Your task to perform on an android device: Go to internet settings Image 0: 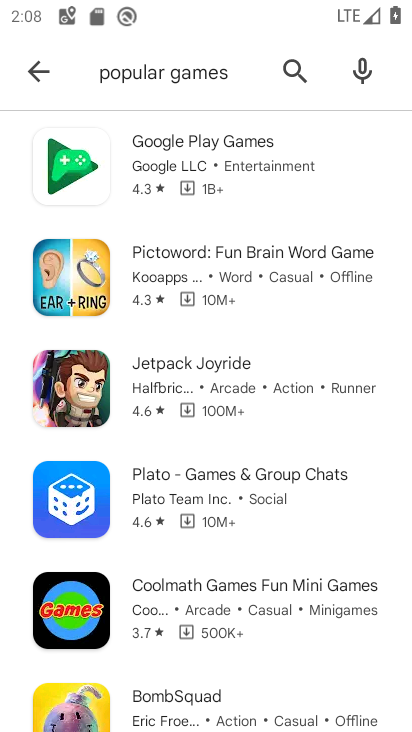
Step 0: press home button
Your task to perform on an android device: Go to internet settings Image 1: 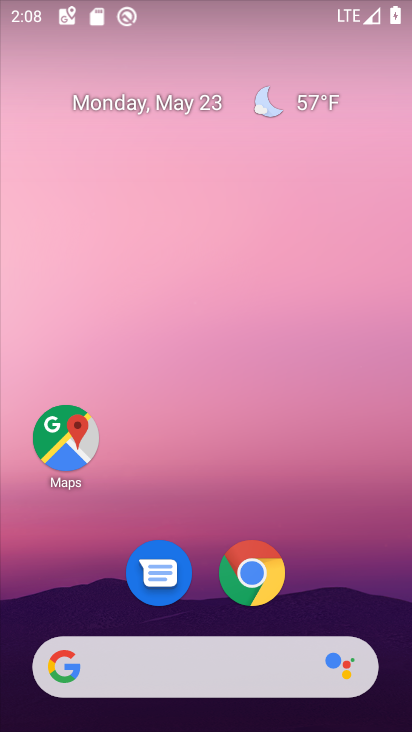
Step 1: drag from (341, 543) to (292, 33)
Your task to perform on an android device: Go to internet settings Image 2: 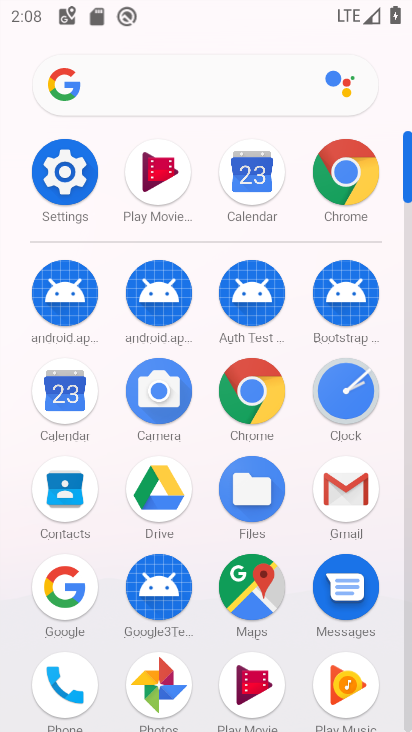
Step 2: click (45, 181)
Your task to perform on an android device: Go to internet settings Image 3: 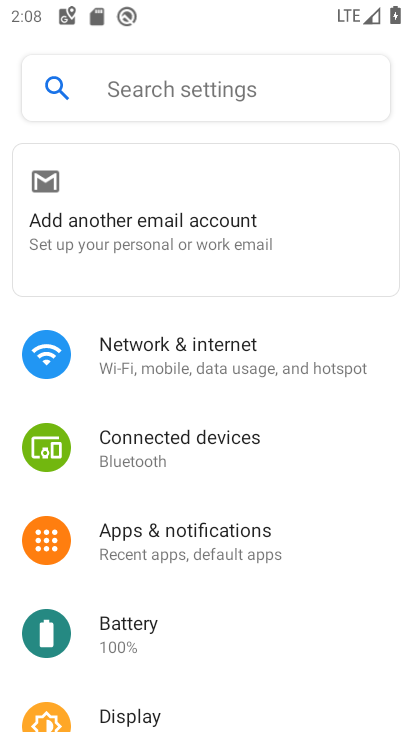
Step 3: click (141, 338)
Your task to perform on an android device: Go to internet settings Image 4: 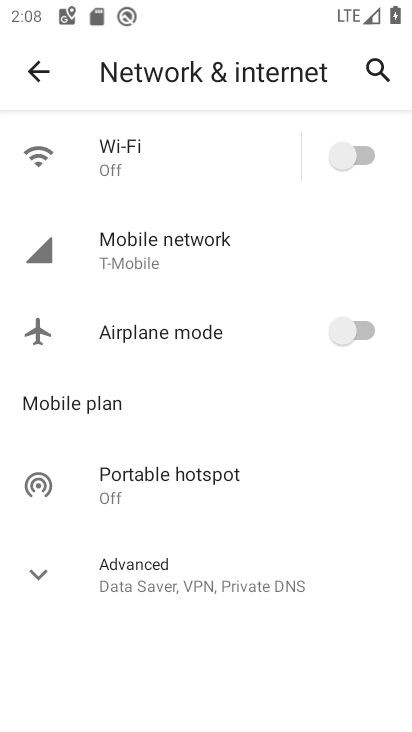
Step 4: task complete